Your task to perform on an android device: Search for "bose soundsport free" on walmart.com, select the first entry, and add it to the cart. Image 0: 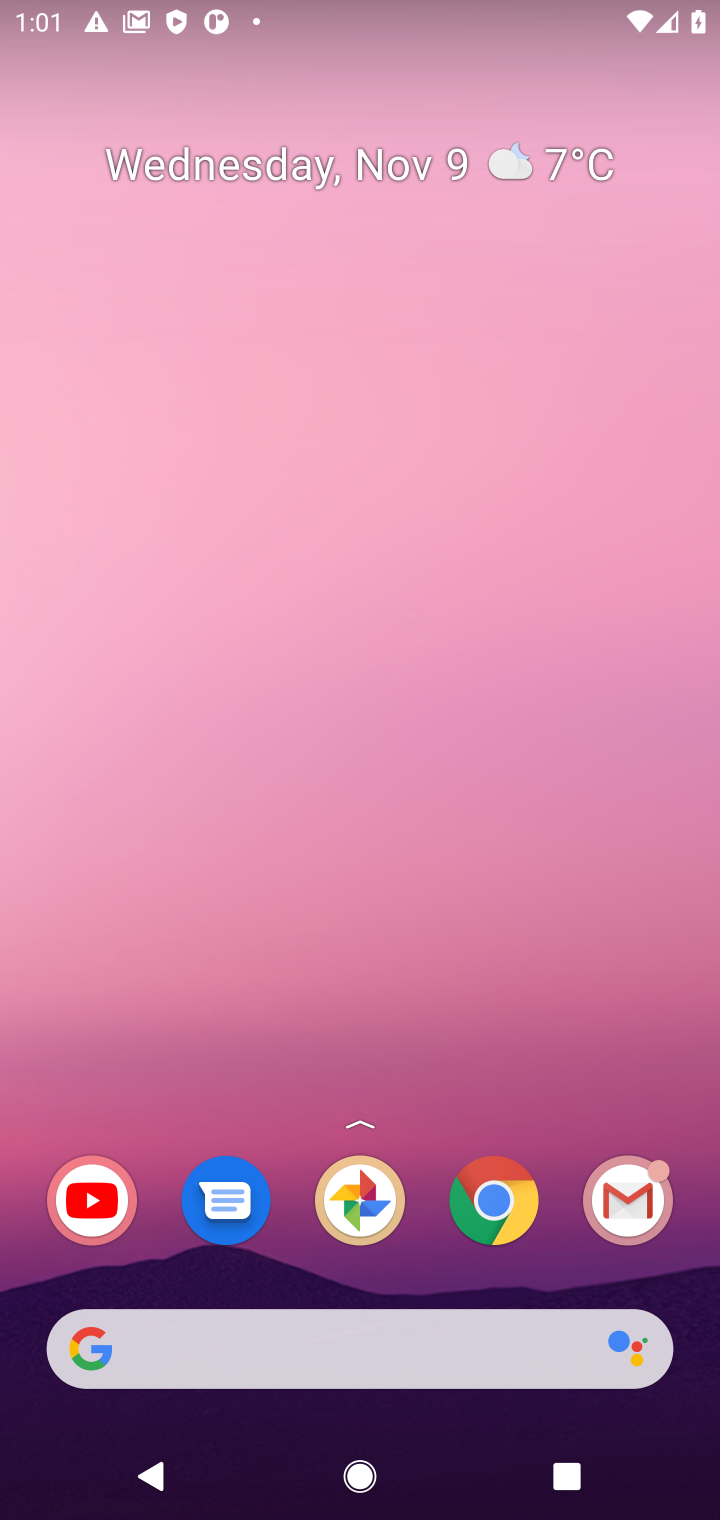
Step 0: click (255, 1346)
Your task to perform on an android device: Search for "bose soundsport free" on walmart.com, select the first entry, and add it to the cart. Image 1: 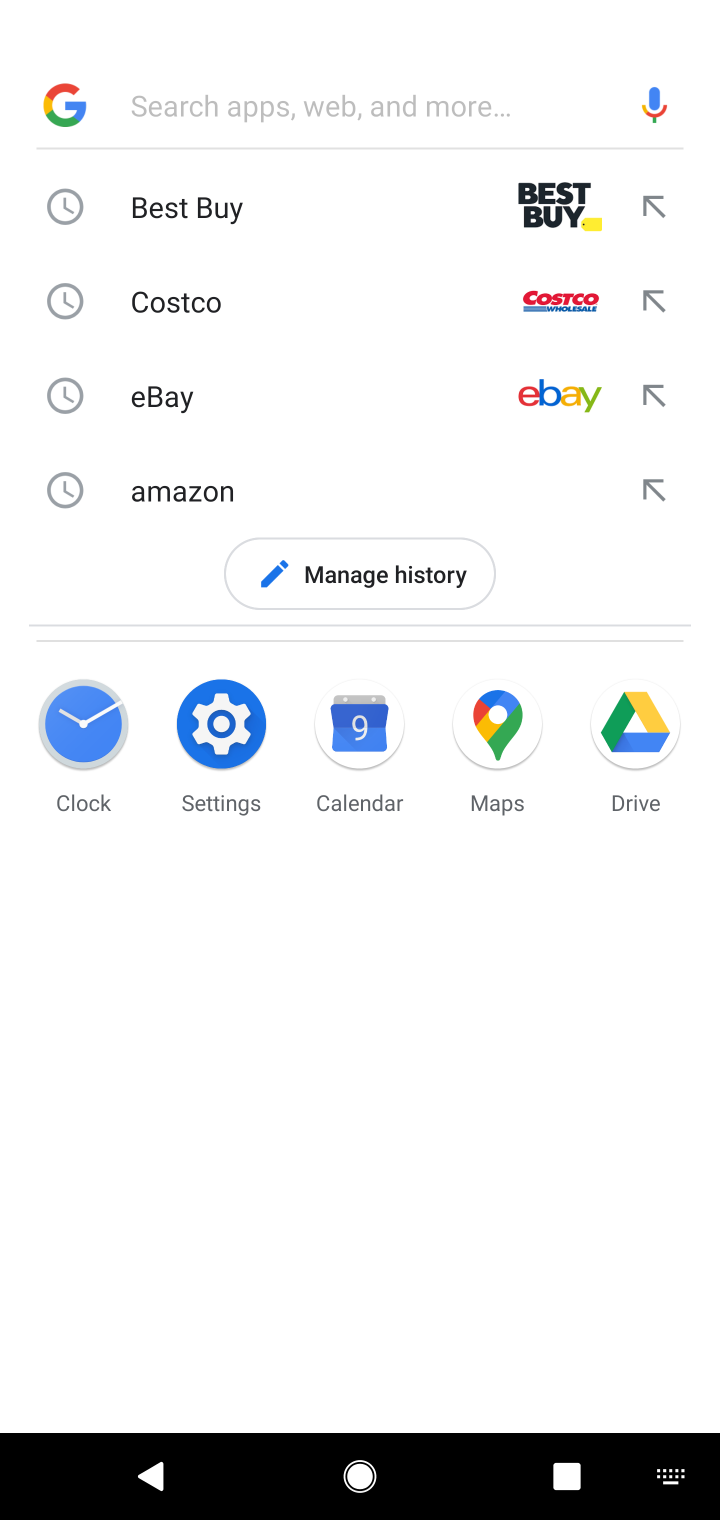
Step 1: type "walmartr"
Your task to perform on an android device: Search for "bose soundsport free" on walmart.com, select the first entry, and add it to the cart. Image 2: 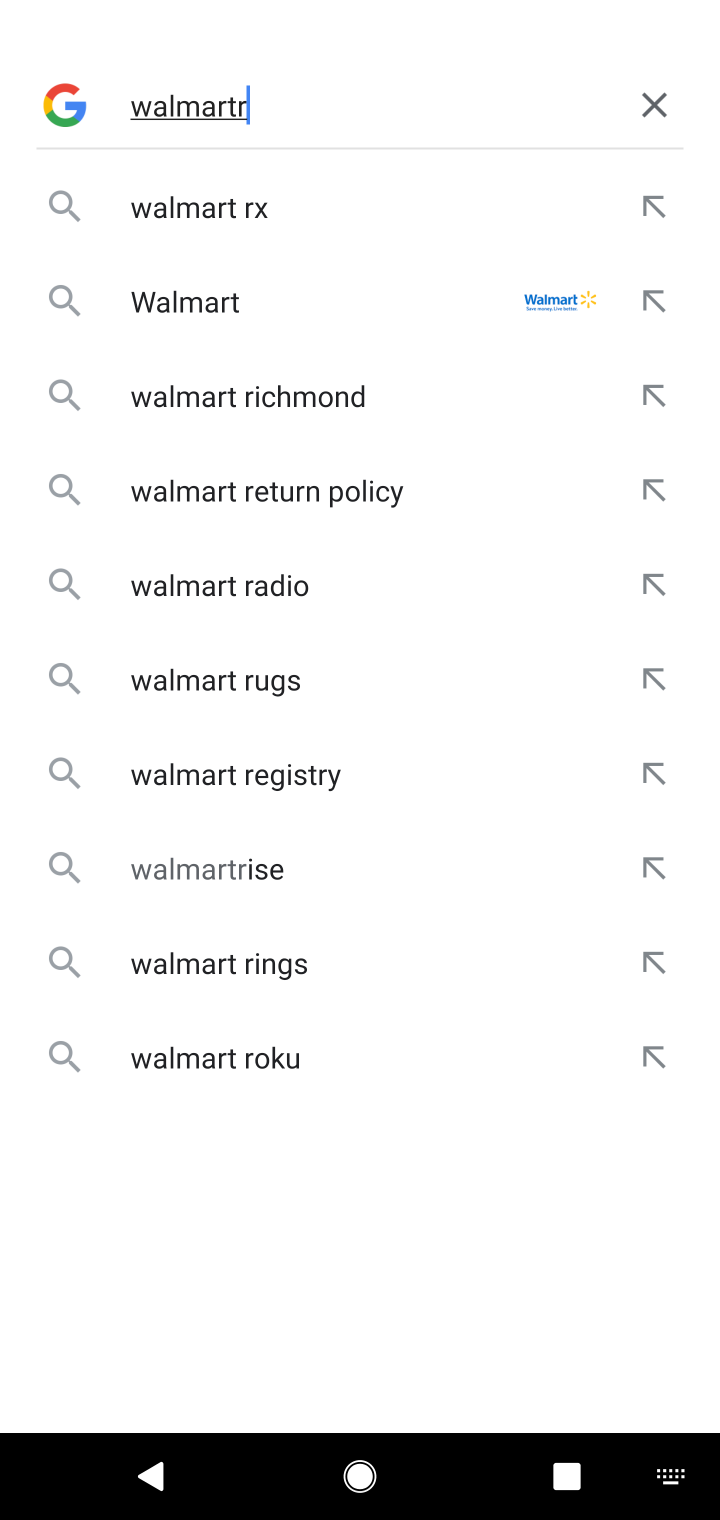
Step 2: click (287, 295)
Your task to perform on an android device: Search for "bose soundsport free" on walmart.com, select the first entry, and add it to the cart. Image 3: 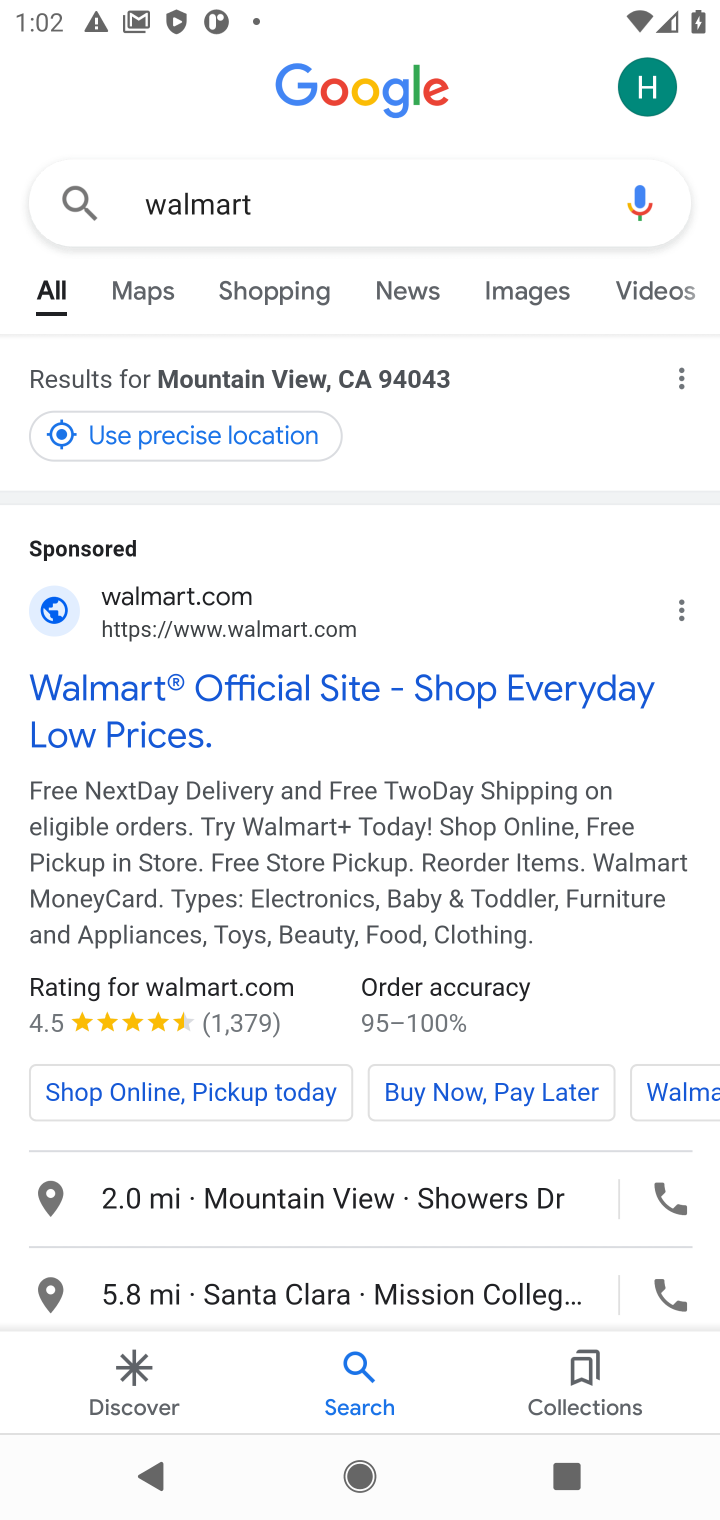
Step 3: click (207, 740)
Your task to perform on an android device: Search for "bose soundsport free" on walmart.com, select the first entry, and add it to the cart. Image 4: 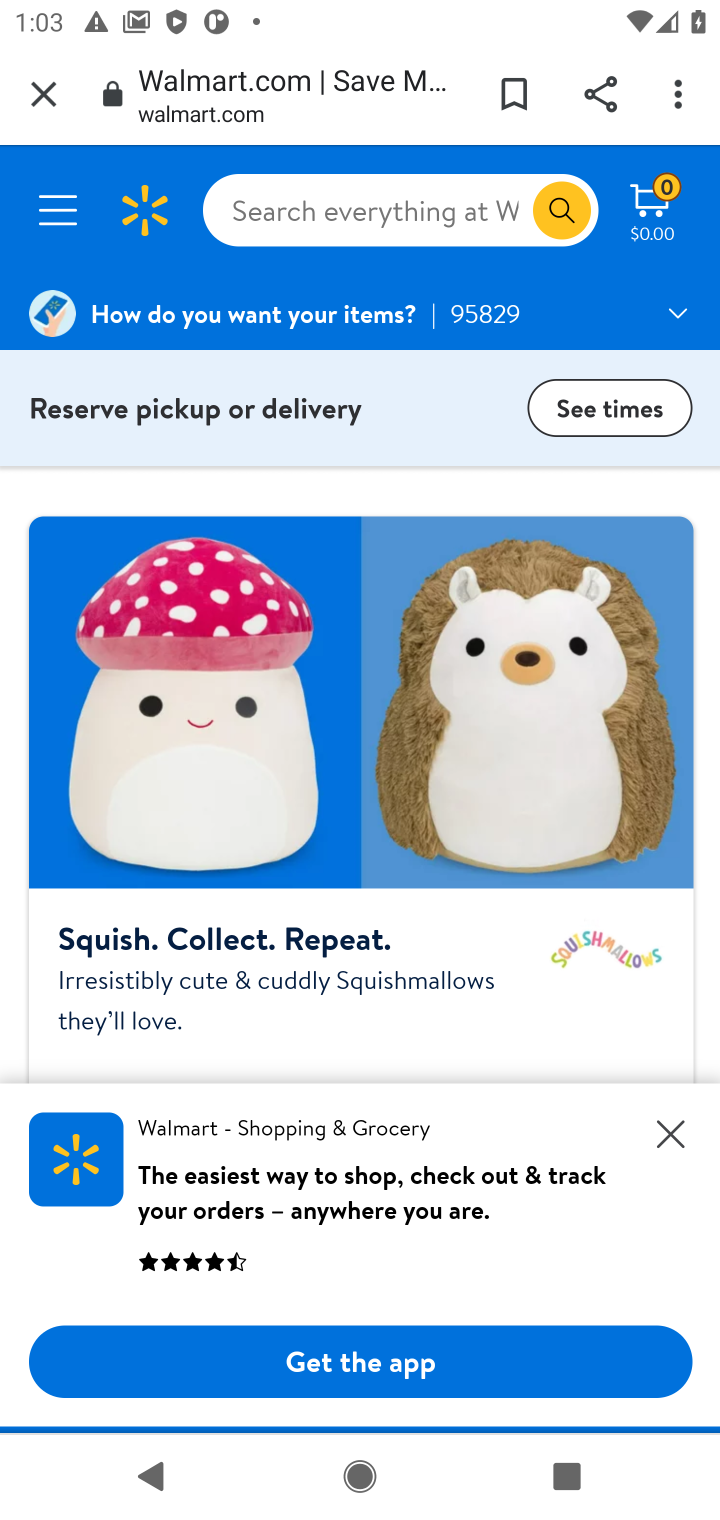
Step 4: task complete